Your task to perform on an android device: turn notification dots off Image 0: 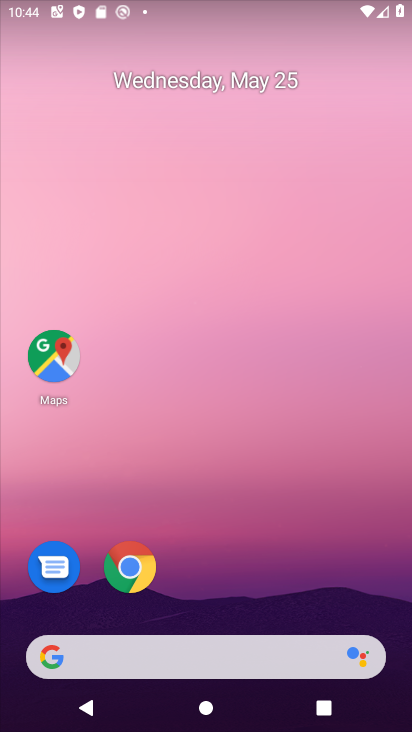
Step 0: drag from (266, 699) to (213, 99)
Your task to perform on an android device: turn notification dots off Image 1: 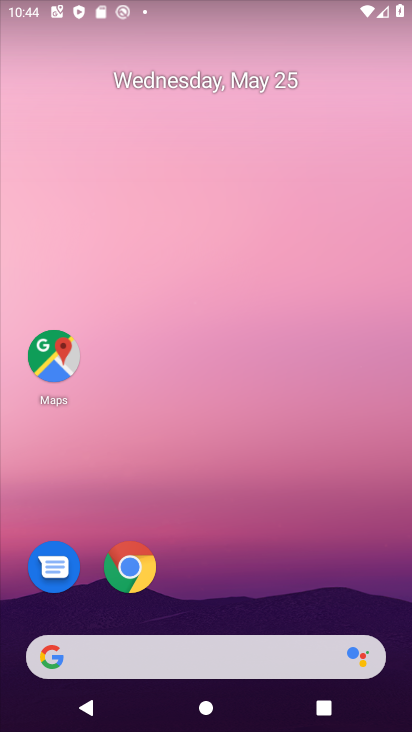
Step 1: drag from (262, 570) to (224, 90)
Your task to perform on an android device: turn notification dots off Image 2: 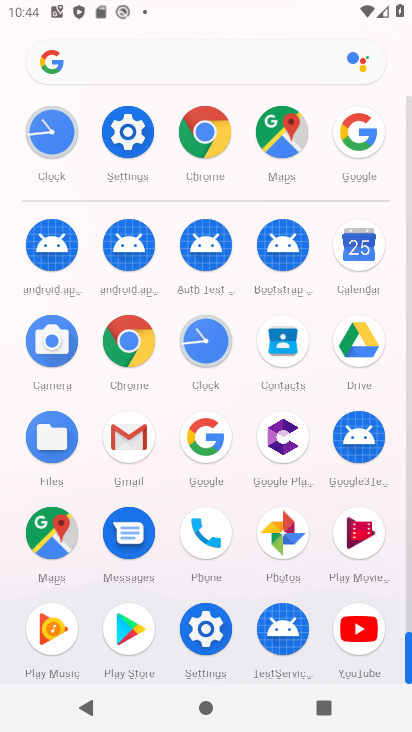
Step 2: drag from (251, 657) to (179, 103)
Your task to perform on an android device: turn notification dots off Image 3: 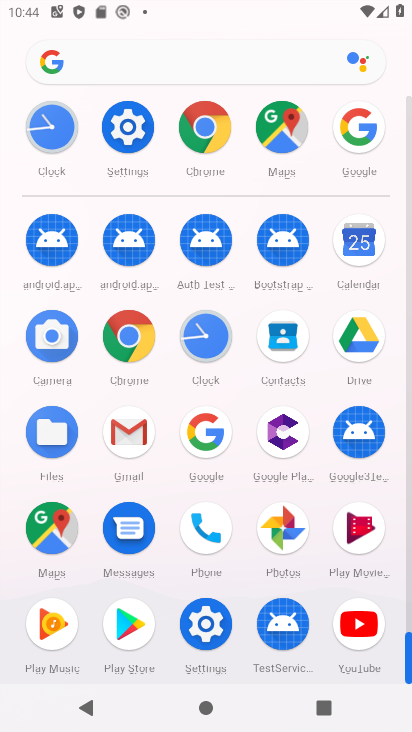
Step 3: click (124, 130)
Your task to perform on an android device: turn notification dots off Image 4: 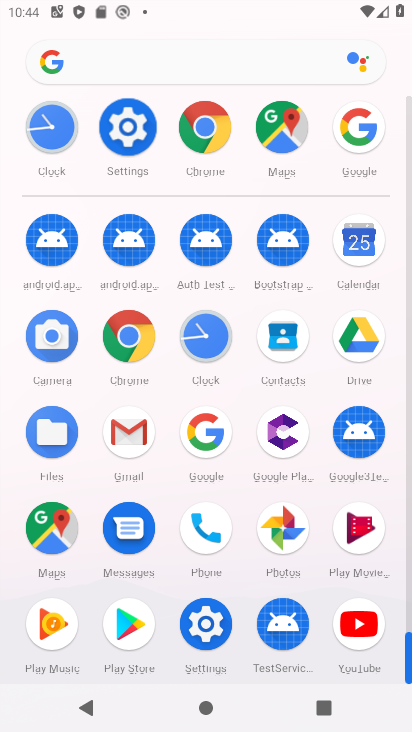
Step 4: click (124, 130)
Your task to perform on an android device: turn notification dots off Image 5: 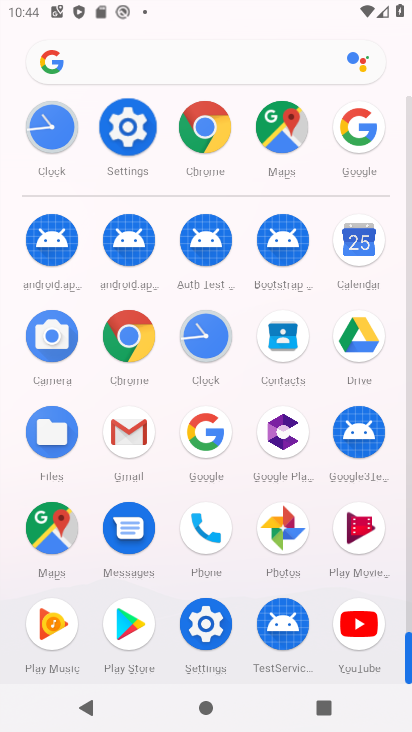
Step 5: click (124, 130)
Your task to perform on an android device: turn notification dots off Image 6: 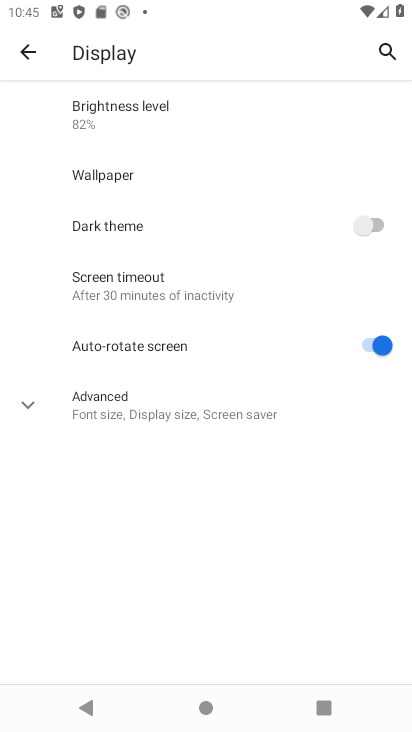
Step 6: click (34, 52)
Your task to perform on an android device: turn notification dots off Image 7: 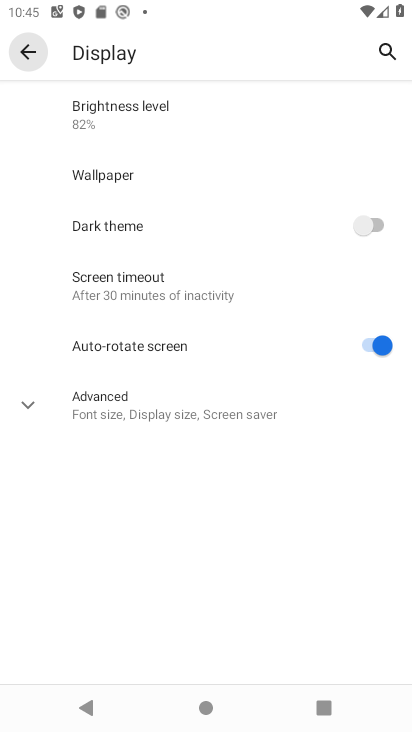
Step 7: click (34, 52)
Your task to perform on an android device: turn notification dots off Image 8: 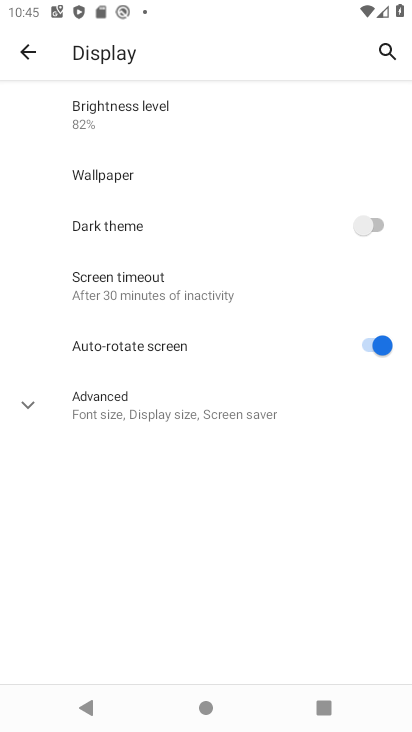
Step 8: click (34, 52)
Your task to perform on an android device: turn notification dots off Image 9: 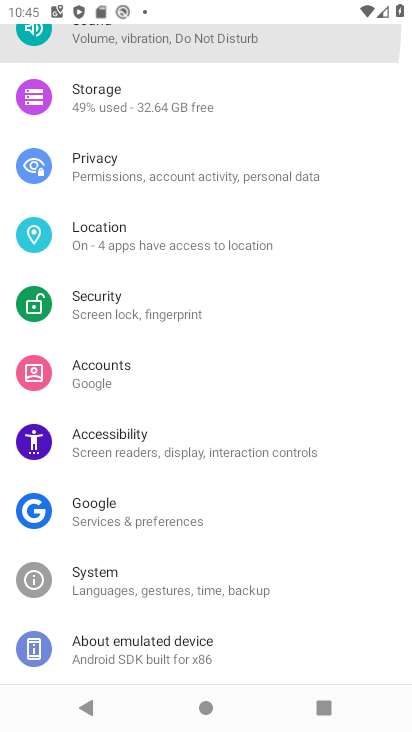
Step 9: click (34, 52)
Your task to perform on an android device: turn notification dots off Image 10: 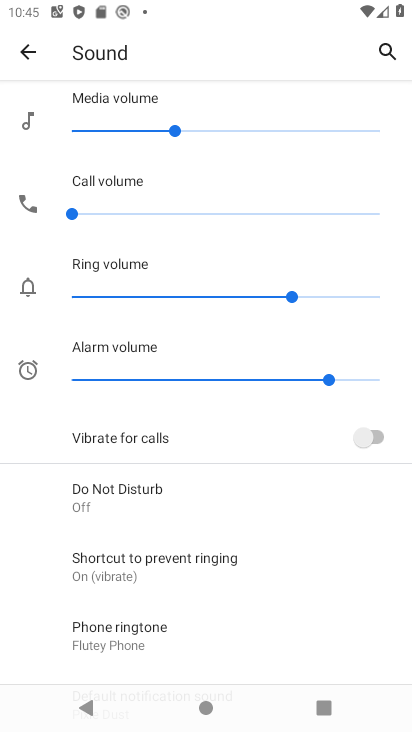
Step 10: click (26, 55)
Your task to perform on an android device: turn notification dots off Image 11: 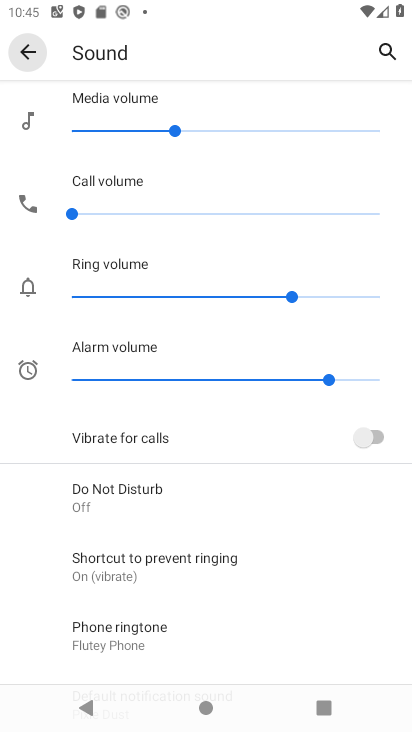
Step 11: click (26, 55)
Your task to perform on an android device: turn notification dots off Image 12: 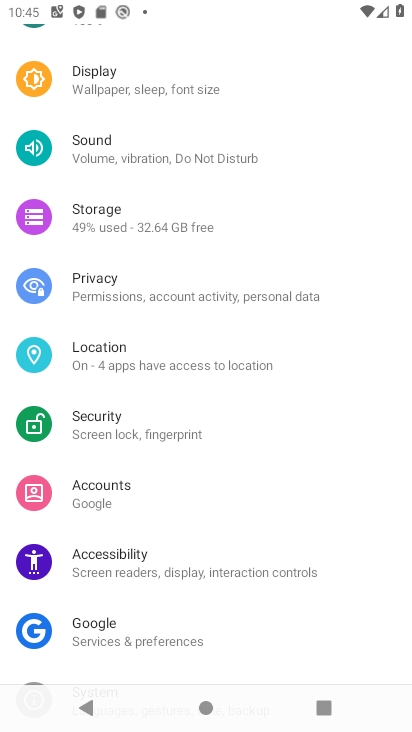
Step 12: drag from (109, 239) to (117, 491)
Your task to perform on an android device: turn notification dots off Image 13: 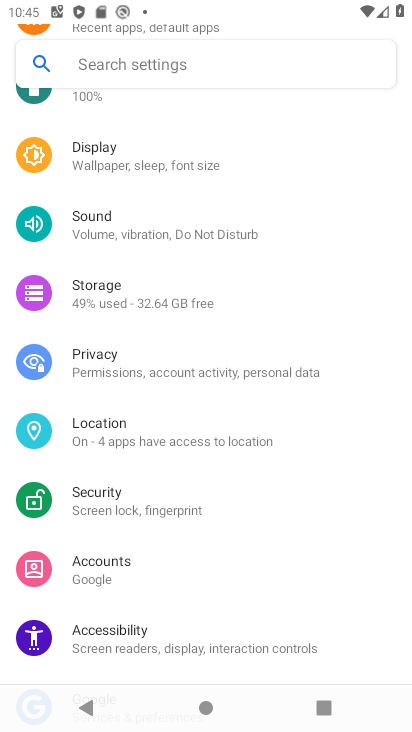
Step 13: drag from (120, 364) to (111, 549)
Your task to perform on an android device: turn notification dots off Image 14: 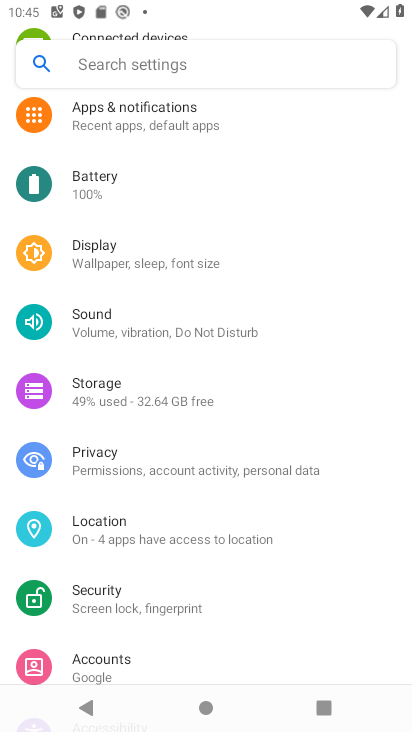
Step 14: click (179, 518)
Your task to perform on an android device: turn notification dots off Image 15: 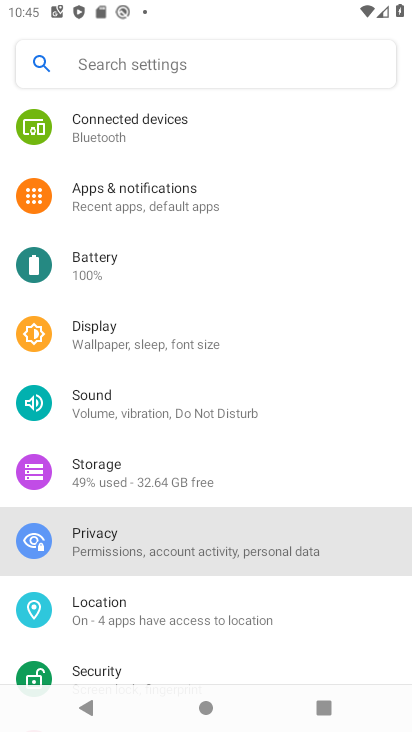
Step 15: drag from (172, 270) to (170, 539)
Your task to perform on an android device: turn notification dots off Image 16: 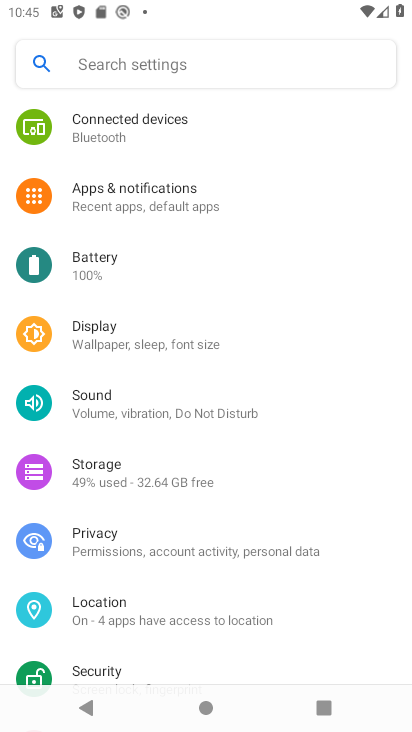
Step 16: drag from (137, 278) to (118, 520)
Your task to perform on an android device: turn notification dots off Image 17: 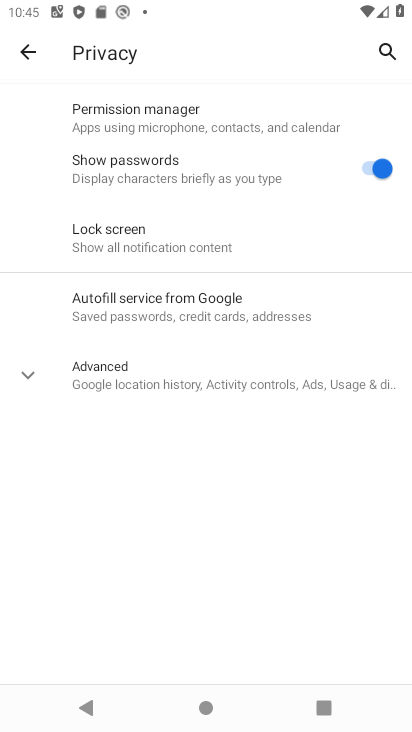
Step 17: drag from (114, 128) to (133, 477)
Your task to perform on an android device: turn notification dots off Image 18: 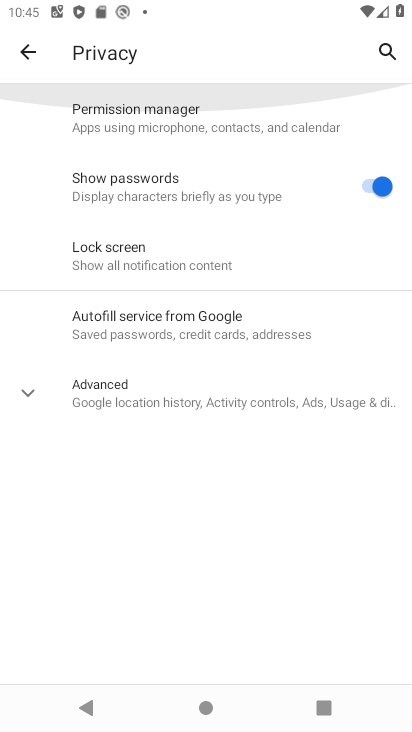
Step 18: drag from (115, 439) to (100, 562)
Your task to perform on an android device: turn notification dots off Image 19: 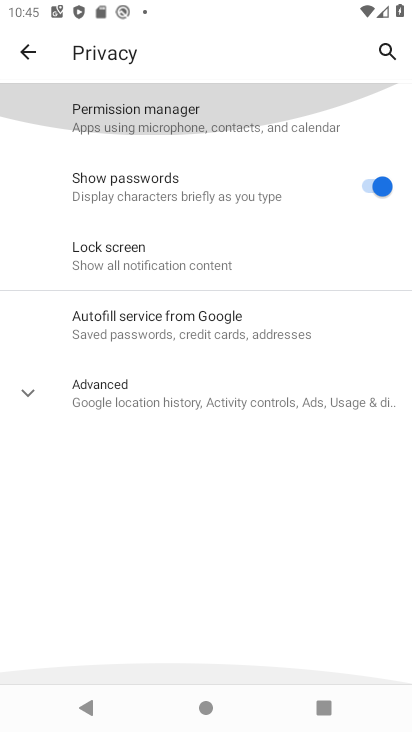
Step 19: drag from (136, 462) to (130, 515)
Your task to perform on an android device: turn notification dots off Image 20: 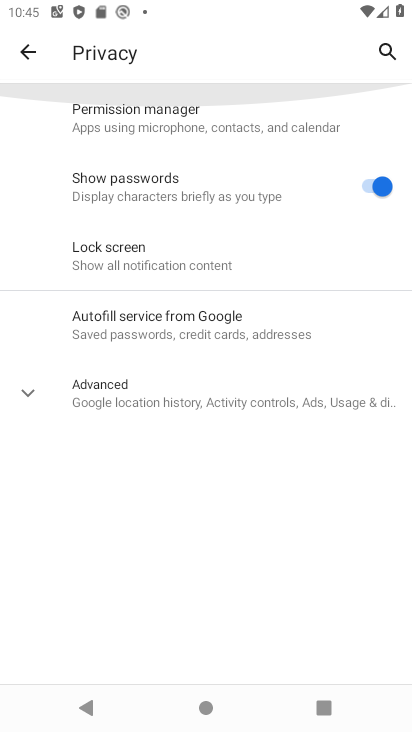
Step 20: drag from (106, 462) to (102, 520)
Your task to perform on an android device: turn notification dots off Image 21: 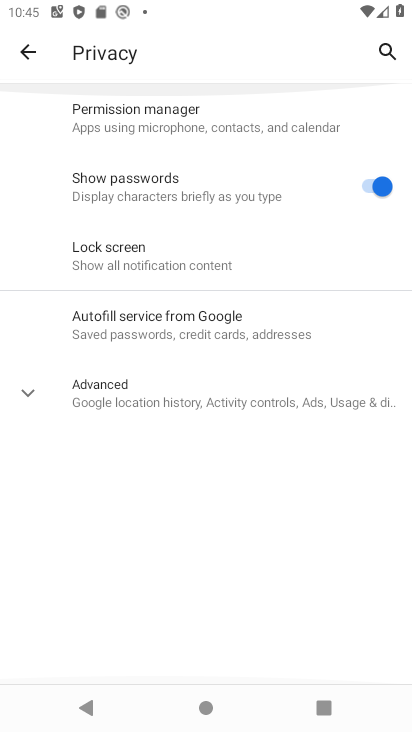
Step 21: drag from (58, 362) to (80, 513)
Your task to perform on an android device: turn notification dots off Image 22: 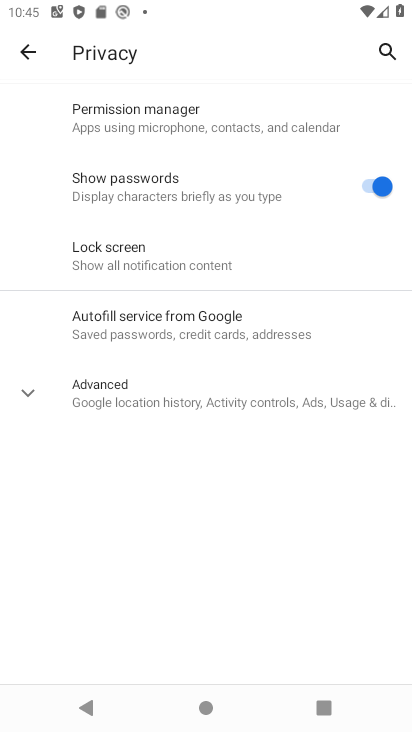
Step 22: click (34, 71)
Your task to perform on an android device: turn notification dots off Image 23: 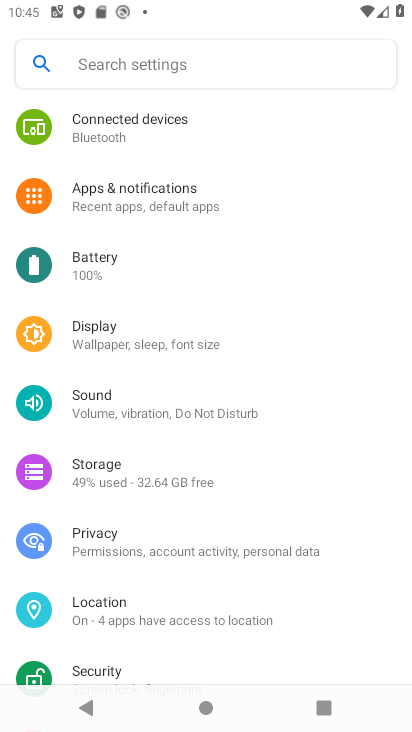
Step 23: click (27, 52)
Your task to perform on an android device: turn notification dots off Image 24: 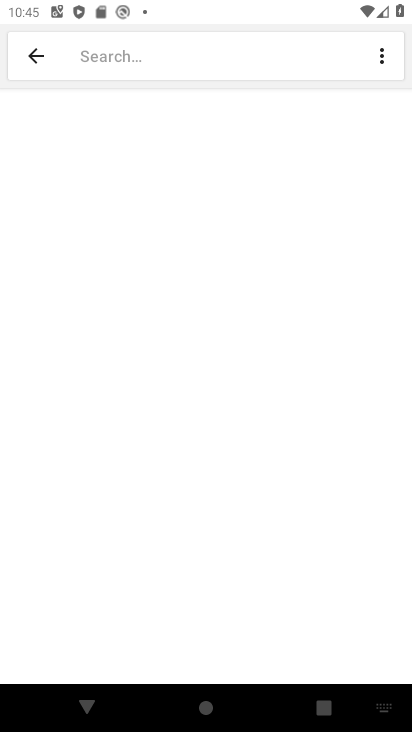
Step 24: drag from (120, 151) to (123, 597)
Your task to perform on an android device: turn notification dots off Image 25: 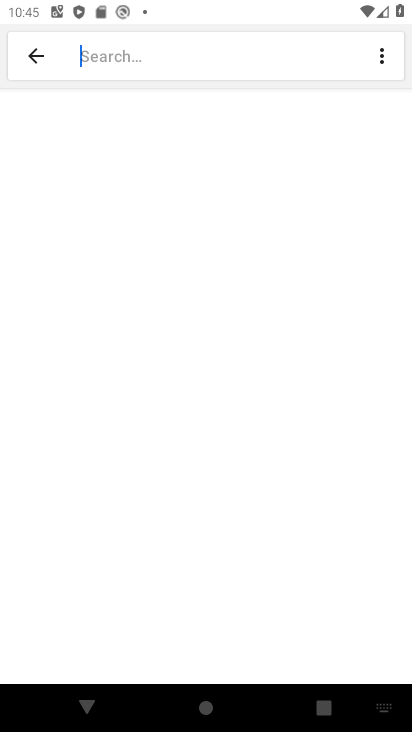
Step 25: click (200, 533)
Your task to perform on an android device: turn notification dots off Image 26: 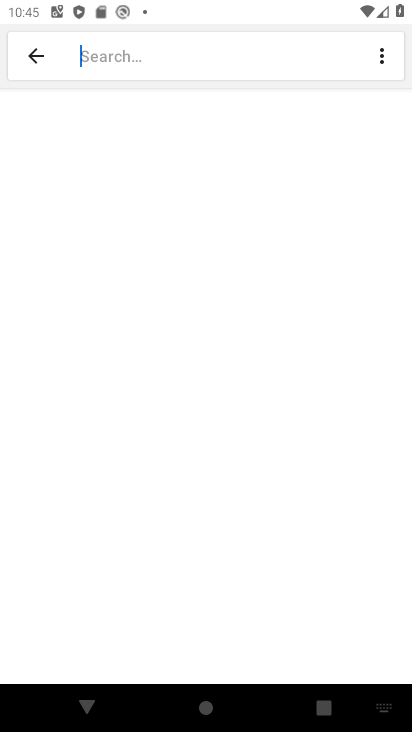
Step 26: click (33, 57)
Your task to perform on an android device: turn notification dots off Image 27: 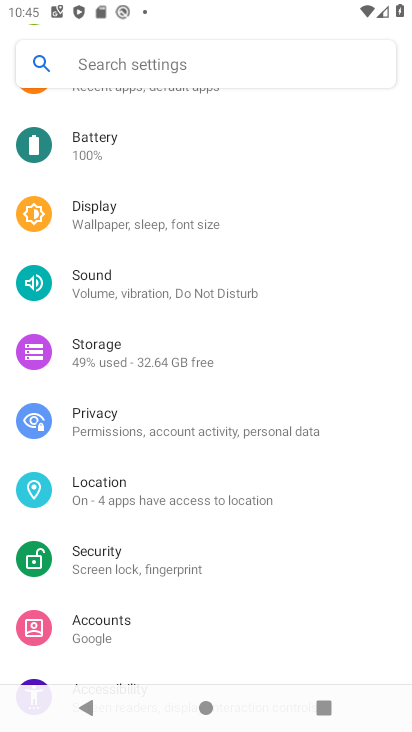
Step 27: click (38, 57)
Your task to perform on an android device: turn notification dots off Image 28: 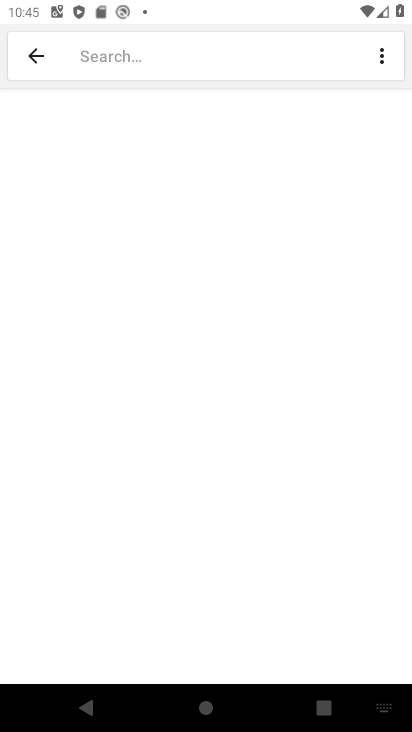
Step 28: click (38, 59)
Your task to perform on an android device: turn notification dots off Image 29: 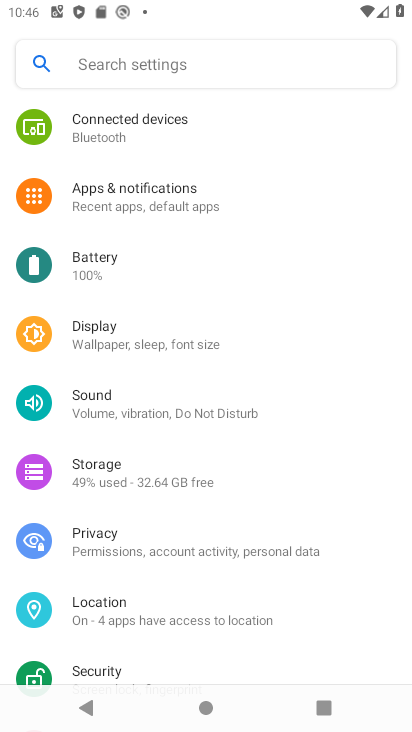
Step 29: click (114, 193)
Your task to perform on an android device: turn notification dots off Image 30: 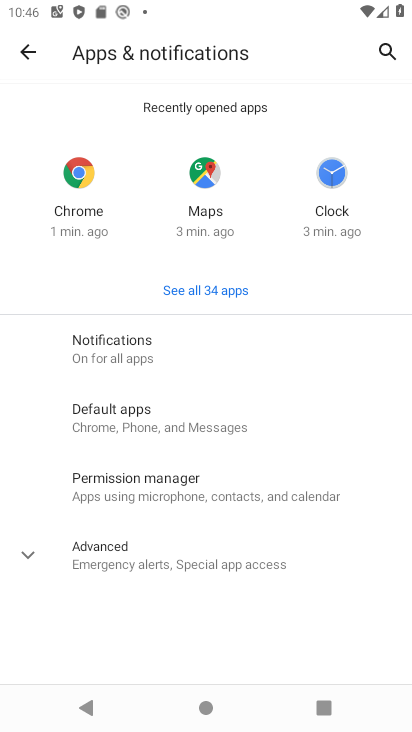
Step 30: click (99, 356)
Your task to perform on an android device: turn notification dots off Image 31: 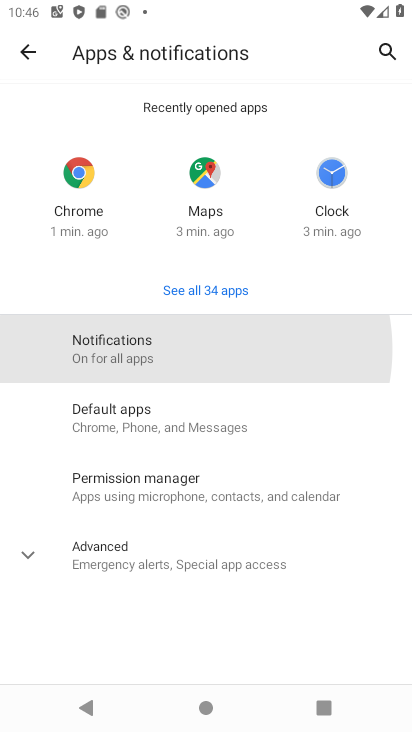
Step 31: click (103, 358)
Your task to perform on an android device: turn notification dots off Image 32: 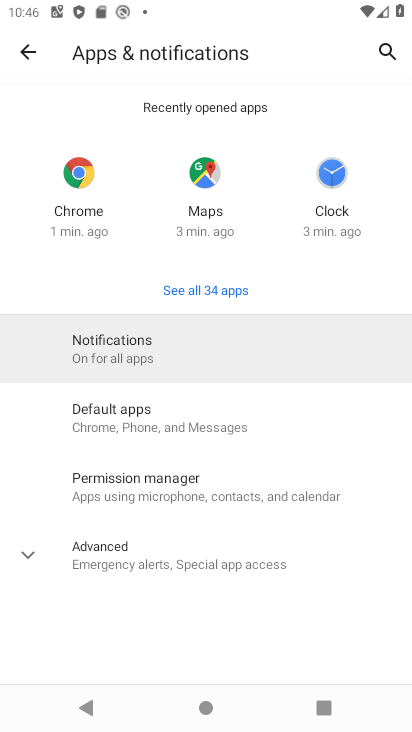
Step 32: click (103, 358)
Your task to perform on an android device: turn notification dots off Image 33: 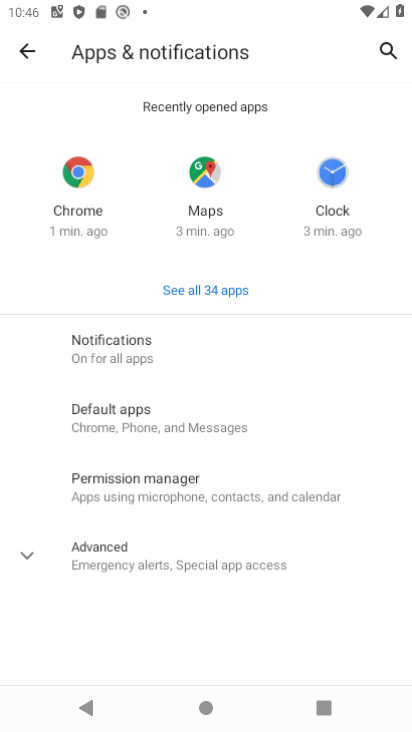
Step 33: click (104, 357)
Your task to perform on an android device: turn notification dots off Image 34: 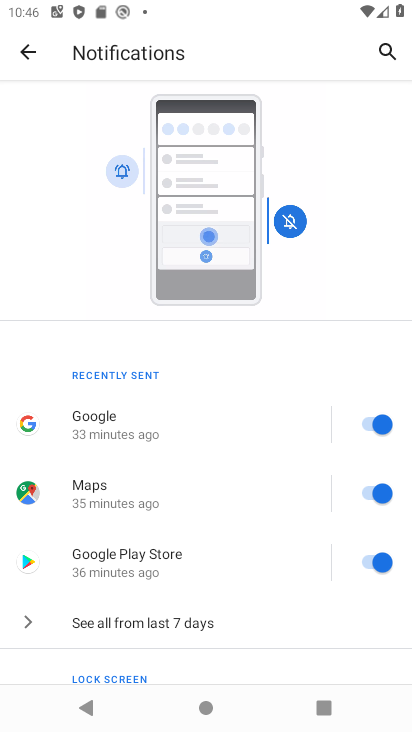
Step 34: click (104, 357)
Your task to perform on an android device: turn notification dots off Image 35: 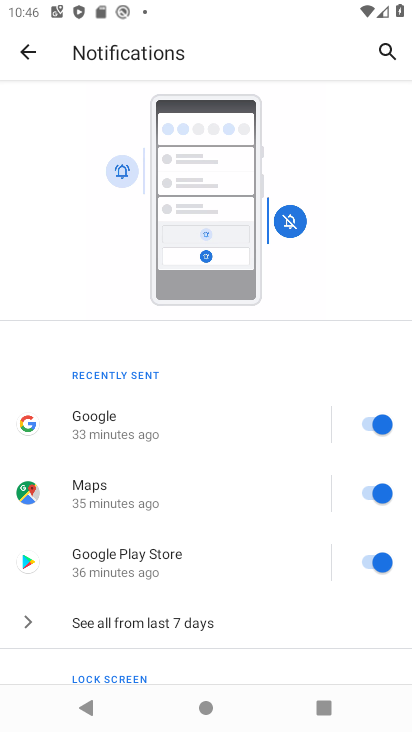
Step 35: click (106, 355)
Your task to perform on an android device: turn notification dots off Image 36: 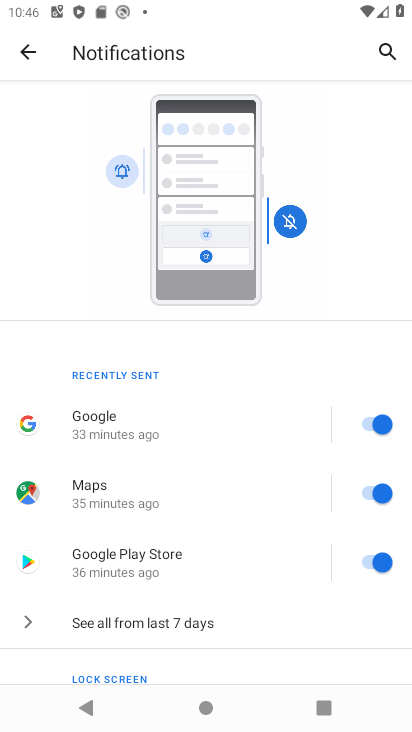
Step 36: click (106, 355)
Your task to perform on an android device: turn notification dots off Image 37: 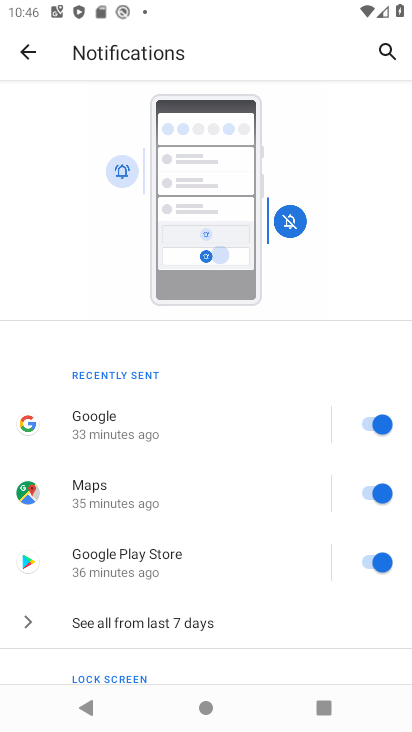
Step 37: click (106, 355)
Your task to perform on an android device: turn notification dots off Image 38: 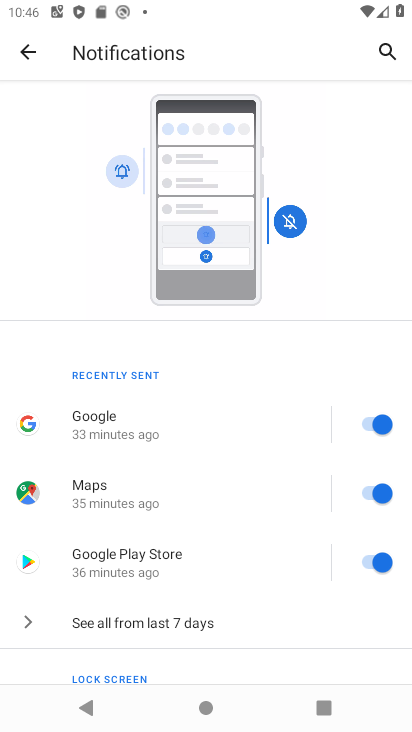
Step 38: click (107, 353)
Your task to perform on an android device: turn notification dots off Image 39: 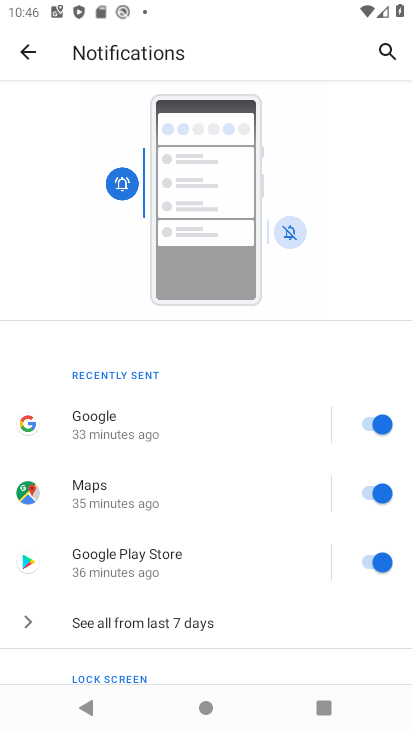
Step 39: drag from (212, 456) to (217, 62)
Your task to perform on an android device: turn notification dots off Image 40: 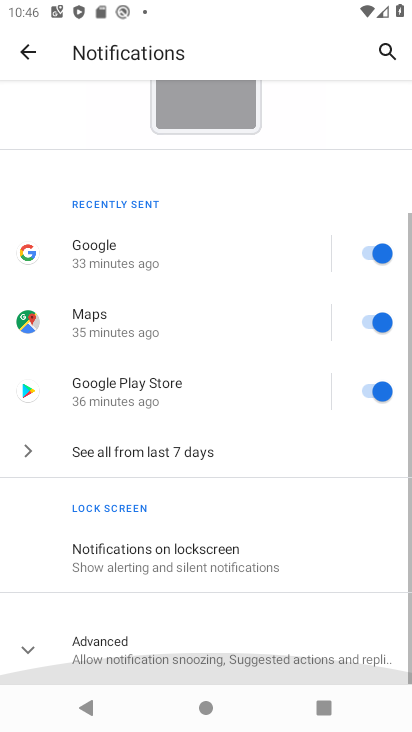
Step 40: drag from (215, 490) to (198, 52)
Your task to perform on an android device: turn notification dots off Image 41: 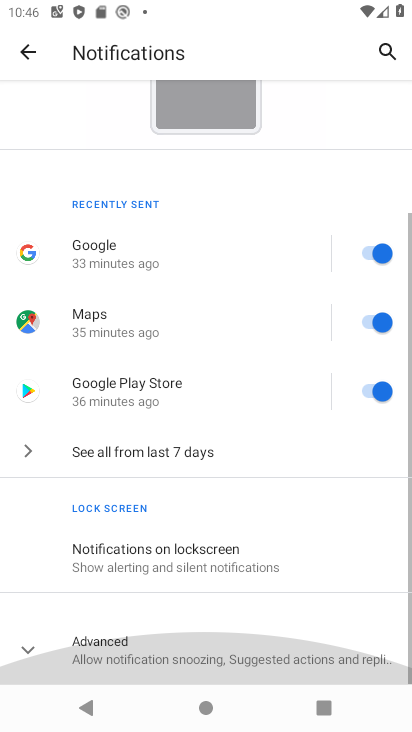
Step 41: drag from (197, 495) to (186, 63)
Your task to perform on an android device: turn notification dots off Image 42: 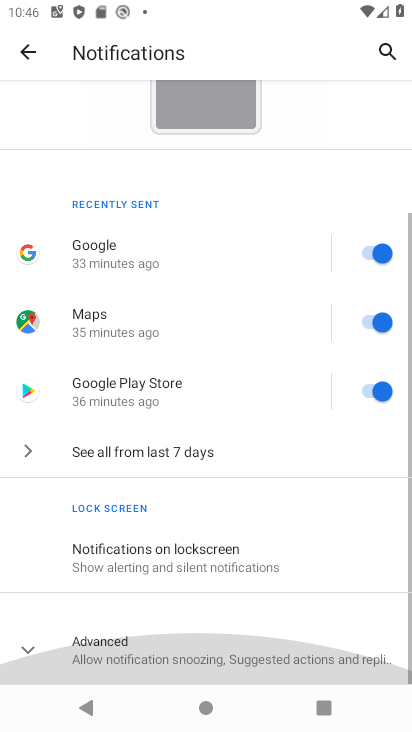
Step 42: drag from (196, 491) to (211, 28)
Your task to perform on an android device: turn notification dots off Image 43: 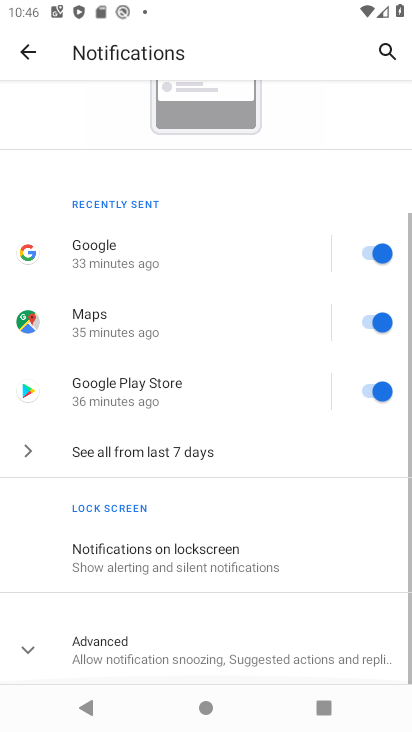
Step 43: drag from (164, 488) to (161, 140)
Your task to perform on an android device: turn notification dots off Image 44: 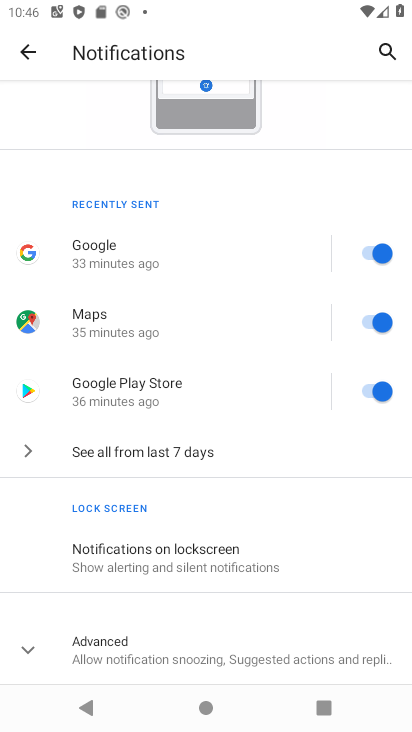
Step 44: click (109, 648)
Your task to perform on an android device: turn notification dots off Image 45: 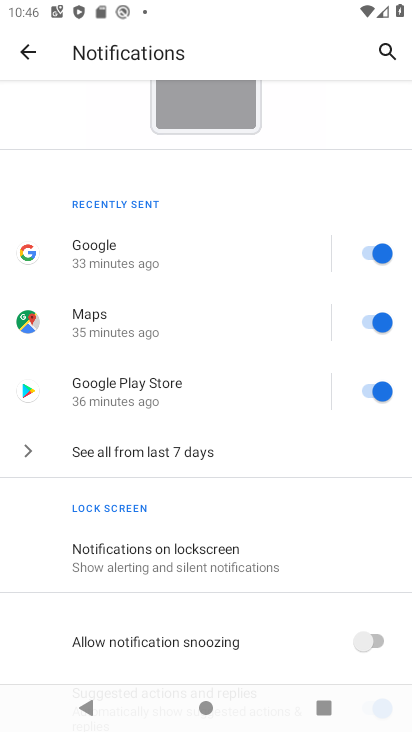
Step 45: drag from (163, 548) to (133, 156)
Your task to perform on an android device: turn notification dots off Image 46: 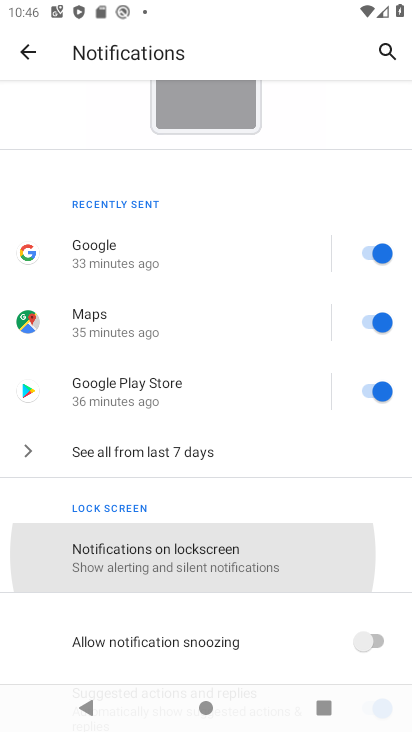
Step 46: drag from (202, 449) to (118, 22)
Your task to perform on an android device: turn notification dots off Image 47: 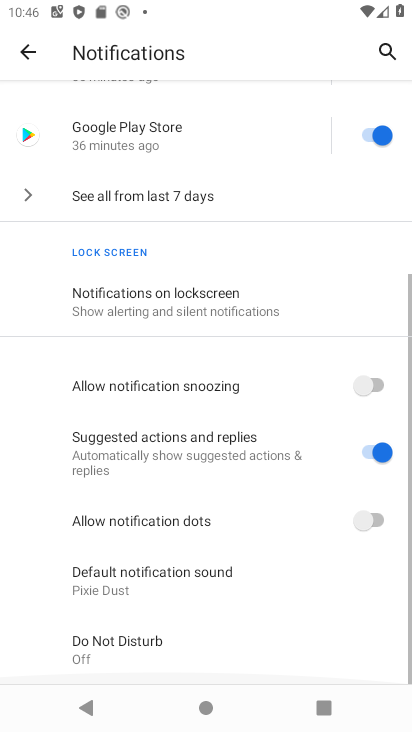
Step 47: drag from (200, 454) to (154, 29)
Your task to perform on an android device: turn notification dots off Image 48: 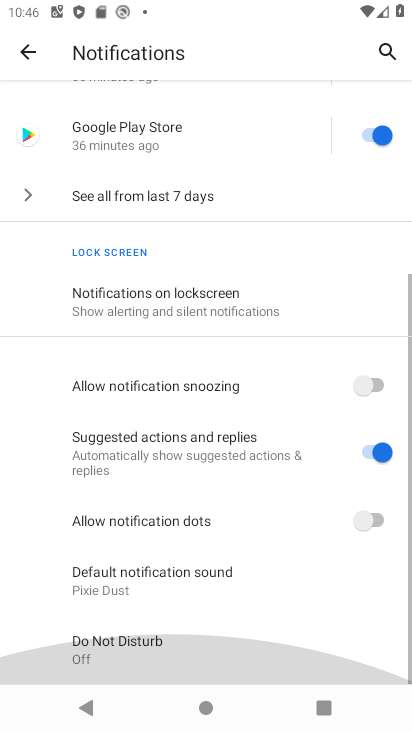
Step 48: drag from (163, 454) to (197, 112)
Your task to perform on an android device: turn notification dots off Image 49: 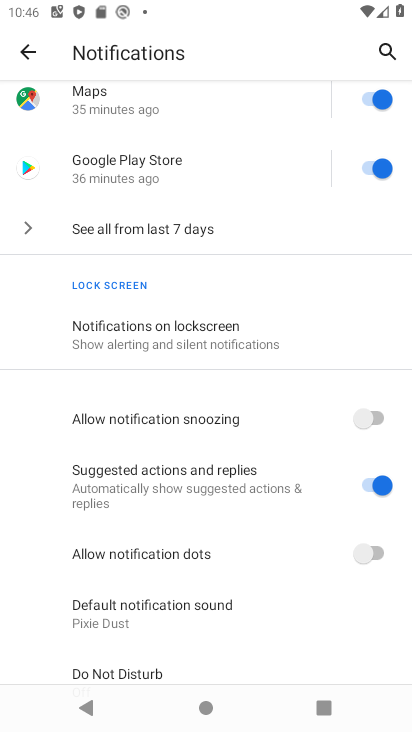
Step 49: drag from (198, 458) to (193, 125)
Your task to perform on an android device: turn notification dots off Image 50: 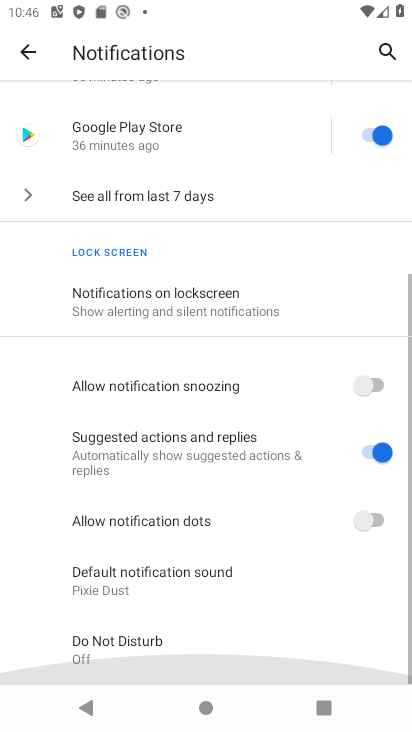
Step 50: drag from (222, 268) to (222, 65)
Your task to perform on an android device: turn notification dots off Image 51: 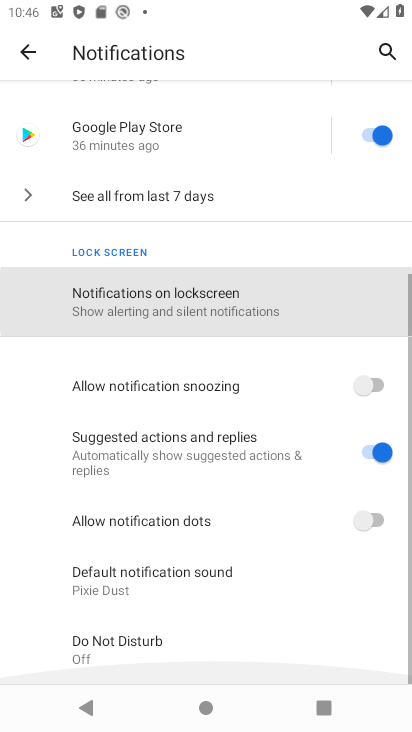
Step 51: drag from (257, 392) to (287, 83)
Your task to perform on an android device: turn notification dots off Image 52: 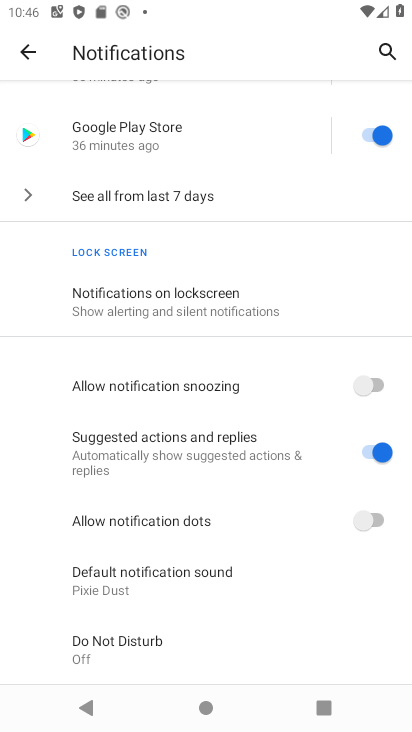
Step 52: click (370, 515)
Your task to perform on an android device: turn notification dots off Image 53: 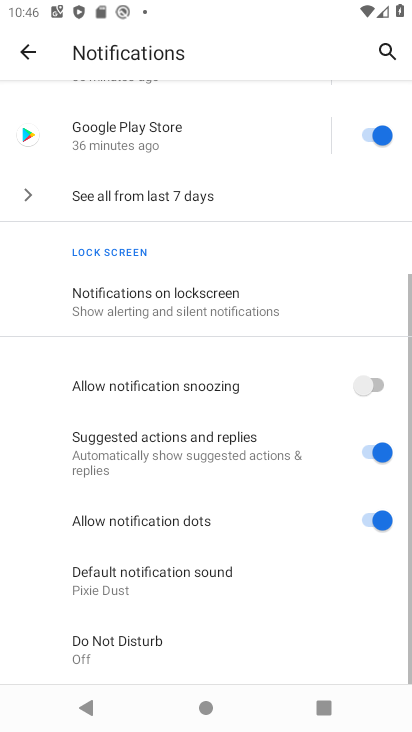
Step 53: click (386, 519)
Your task to perform on an android device: turn notification dots off Image 54: 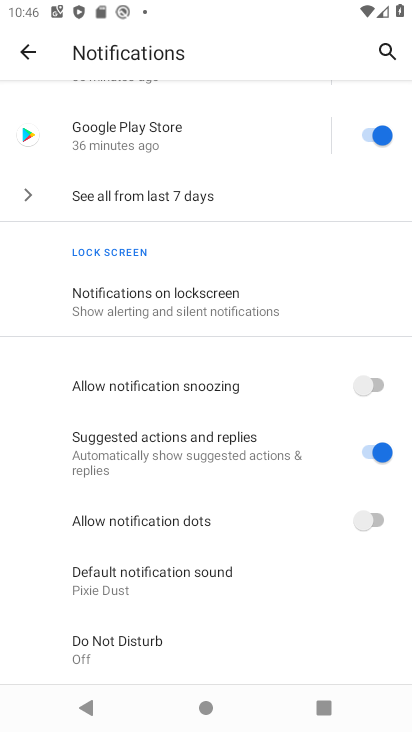
Step 54: task complete